Your task to perform on an android device: Search for seafood restaurants on Google Maps Image 0: 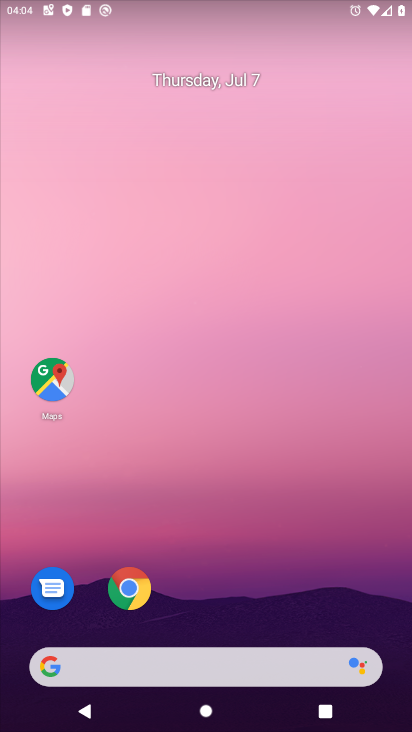
Step 0: drag from (187, 642) to (206, 236)
Your task to perform on an android device: Search for seafood restaurants on Google Maps Image 1: 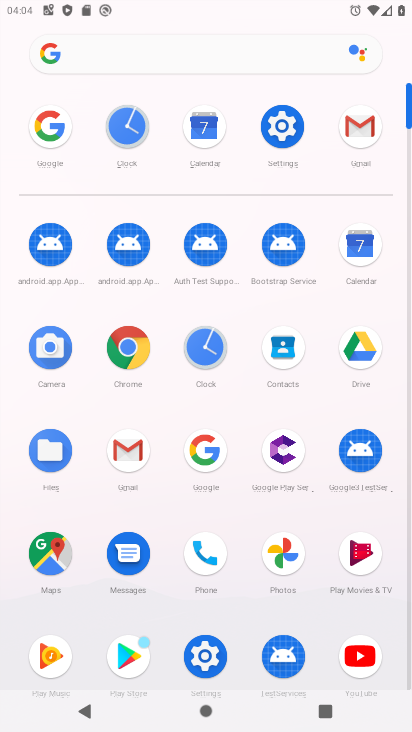
Step 1: click (54, 547)
Your task to perform on an android device: Search for seafood restaurants on Google Maps Image 2: 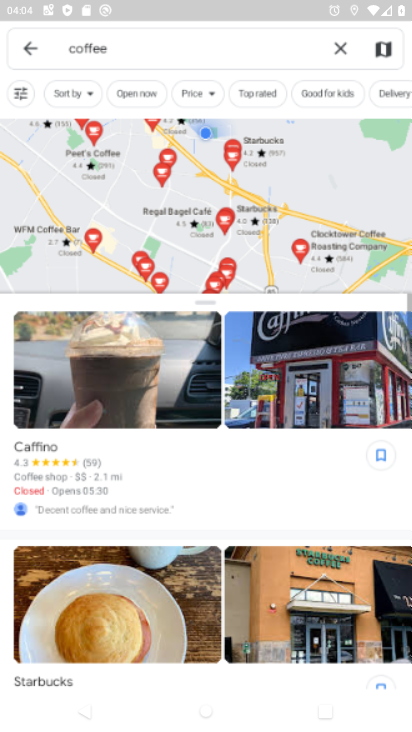
Step 2: click (340, 46)
Your task to perform on an android device: Search for seafood restaurants on Google Maps Image 3: 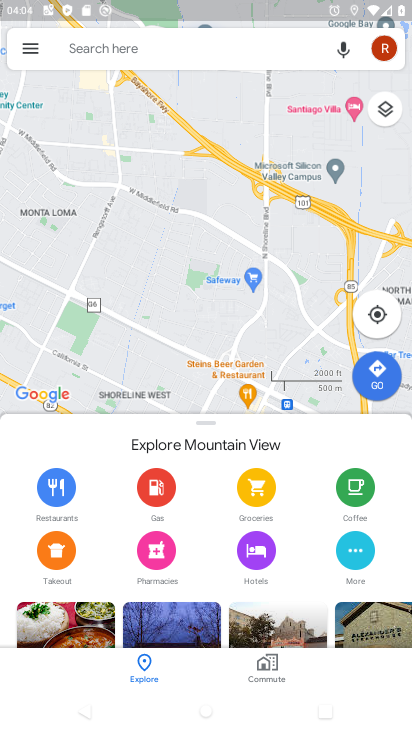
Step 3: click (195, 45)
Your task to perform on an android device: Search for seafood restaurants on Google Maps Image 4: 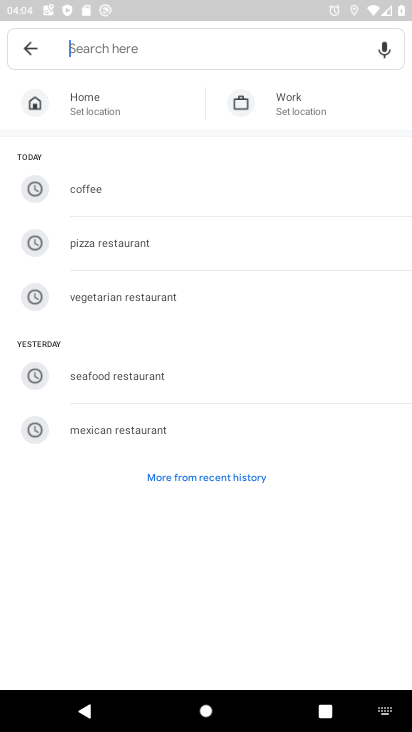
Step 4: click (98, 382)
Your task to perform on an android device: Search for seafood restaurants on Google Maps Image 5: 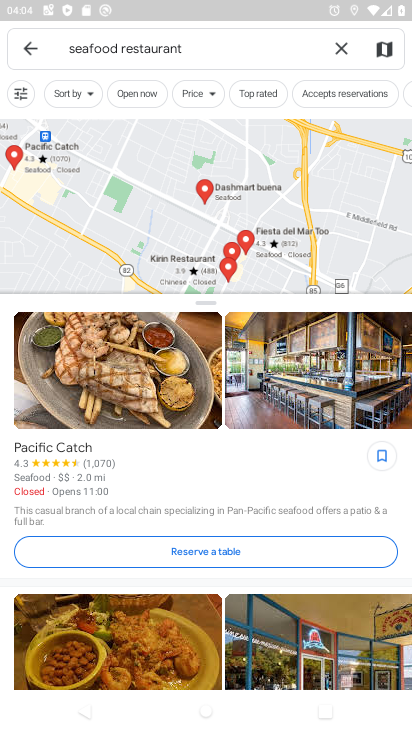
Step 5: task complete